Your task to perform on an android device: toggle show notifications on the lock screen Image 0: 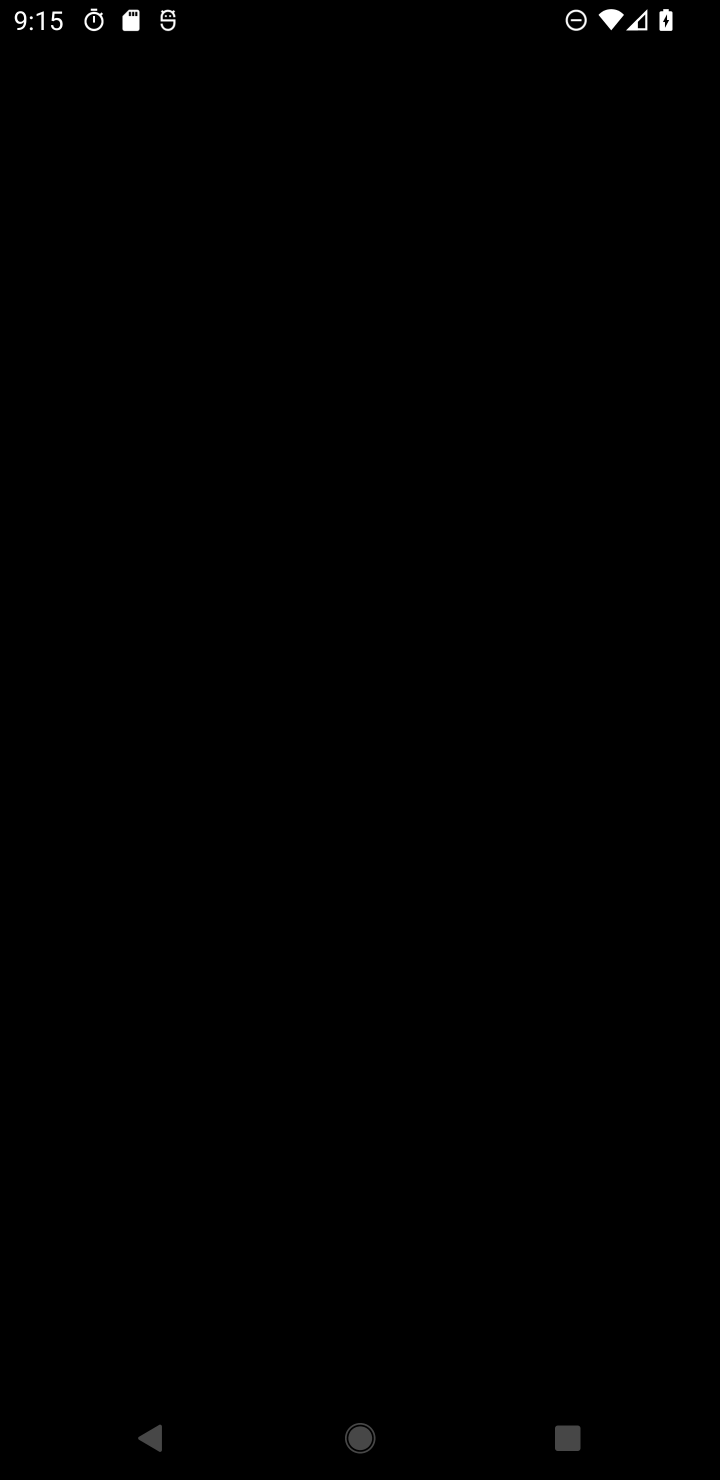
Step 0: press home button
Your task to perform on an android device: toggle show notifications on the lock screen Image 1: 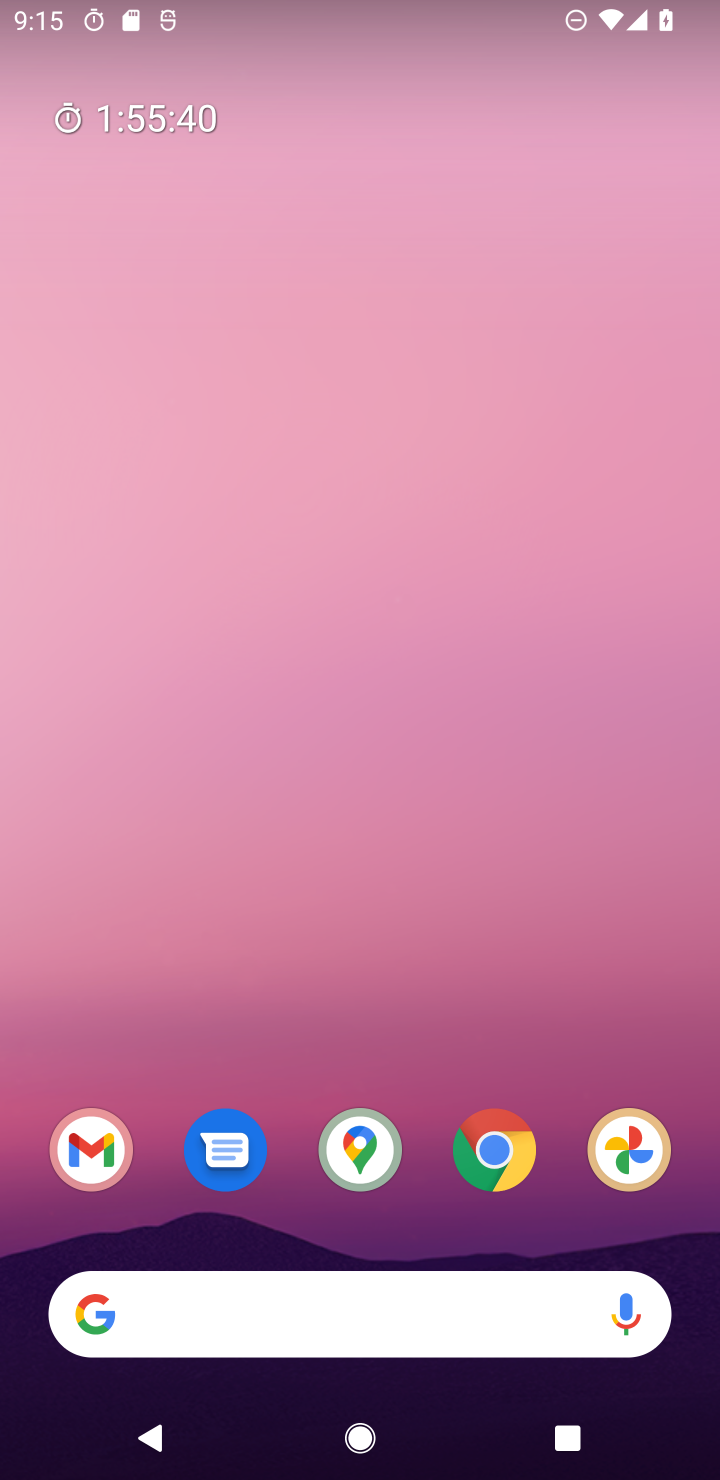
Step 1: drag from (560, 1226) to (719, 256)
Your task to perform on an android device: toggle show notifications on the lock screen Image 2: 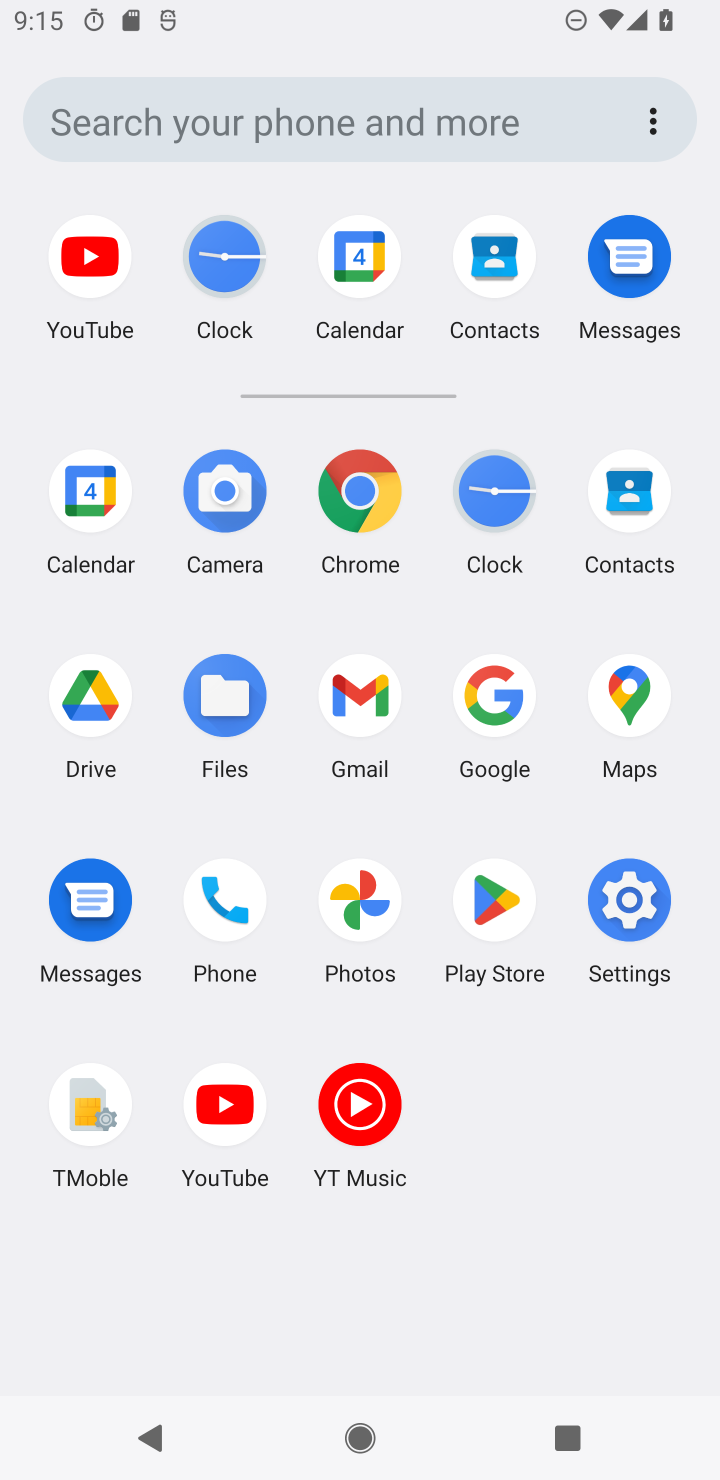
Step 2: click (629, 914)
Your task to perform on an android device: toggle show notifications on the lock screen Image 3: 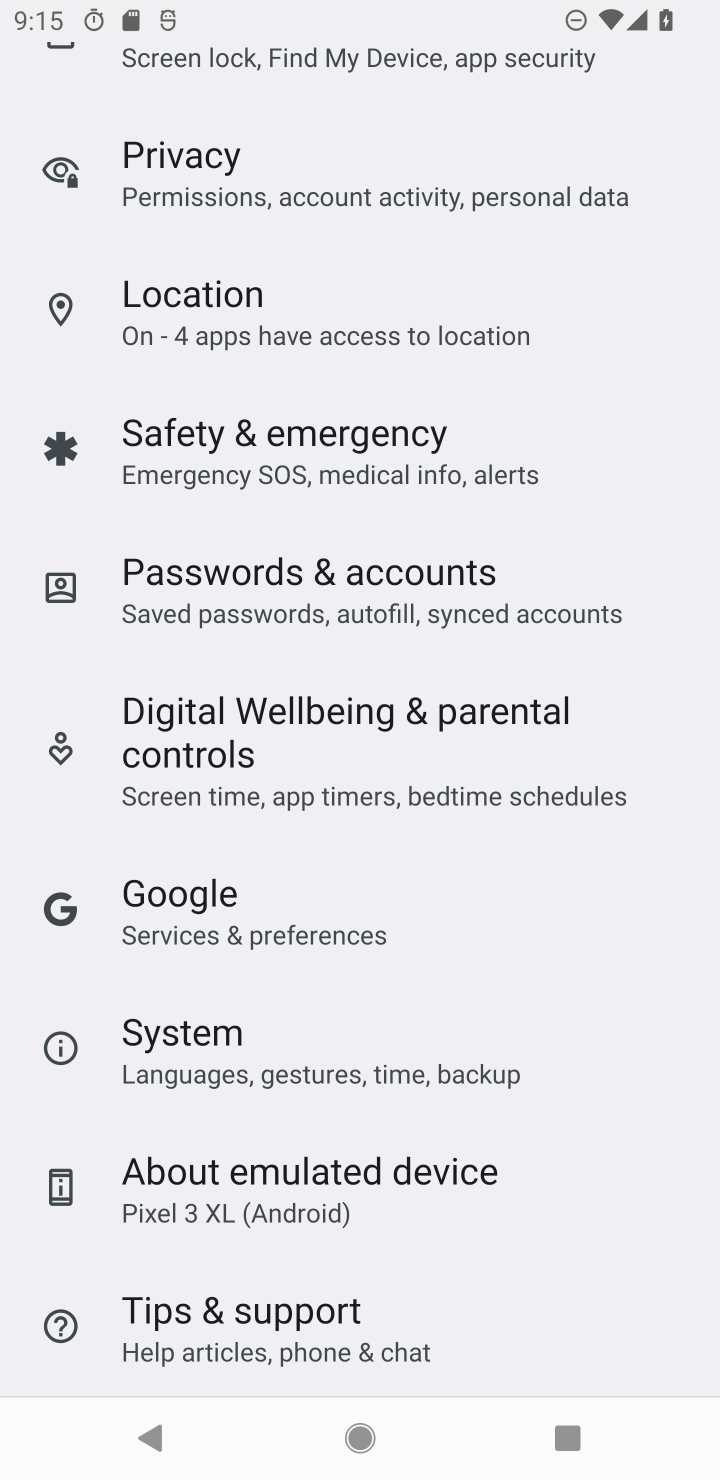
Step 3: drag from (410, 469) to (399, 1446)
Your task to perform on an android device: toggle show notifications on the lock screen Image 4: 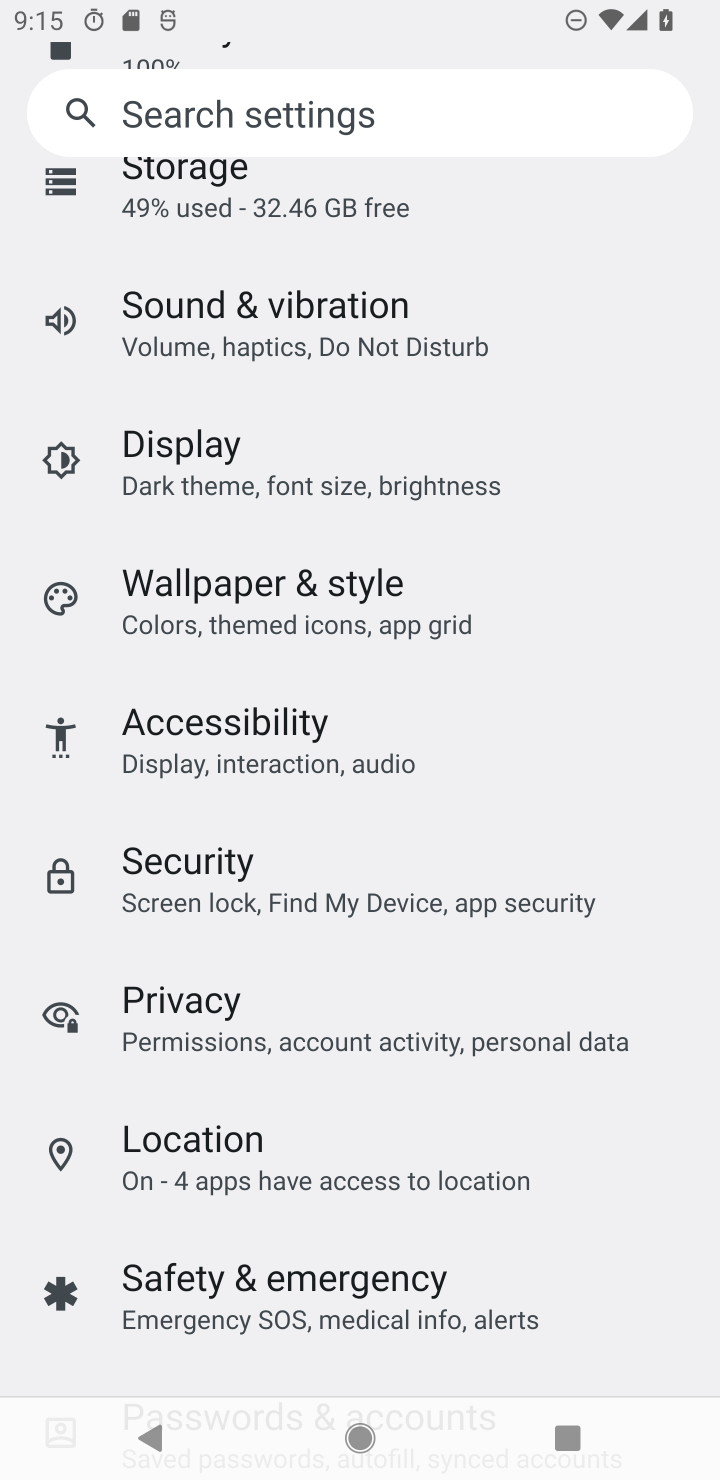
Step 4: drag from (356, 315) to (316, 1146)
Your task to perform on an android device: toggle show notifications on the lock screen Image 5: 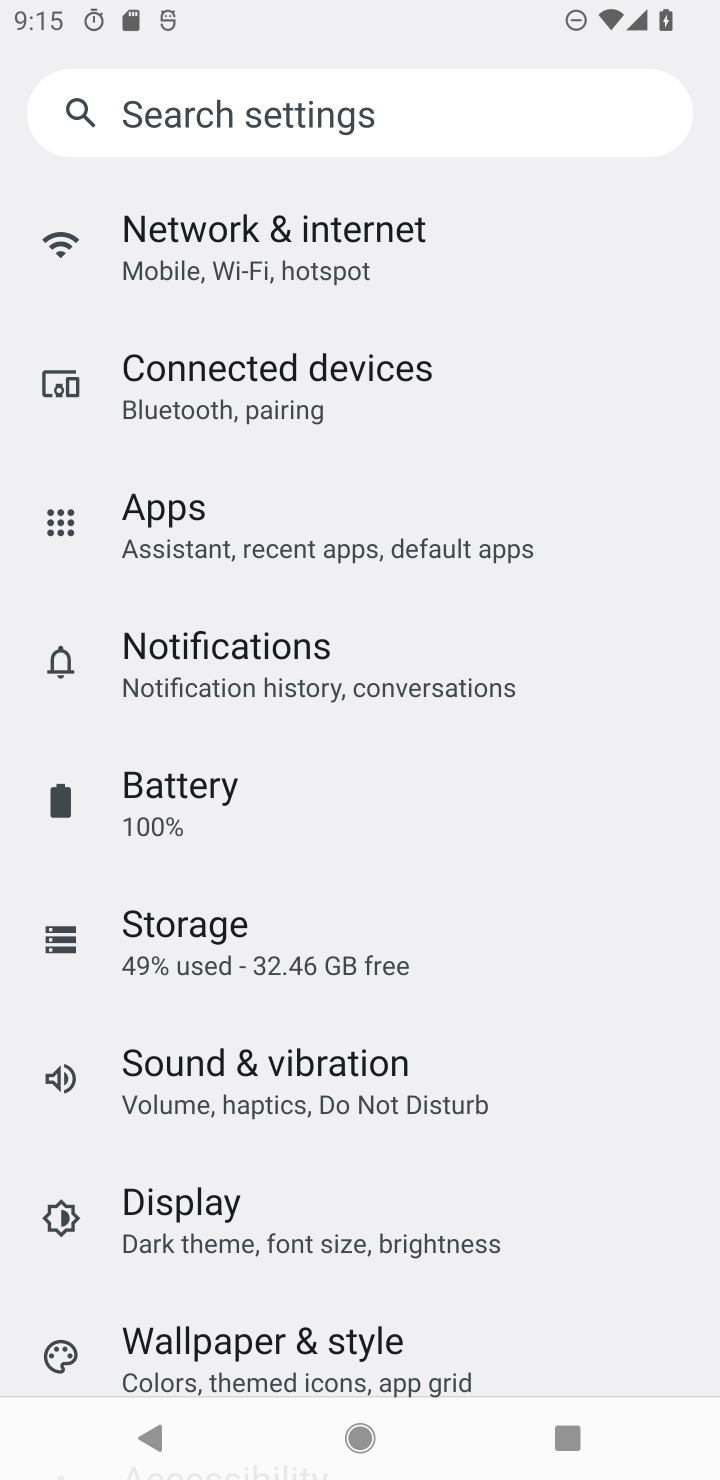
Step 5: click (284, 643)
Your task to perform on an android device: toggle show notifications on the lock screen Image 6: 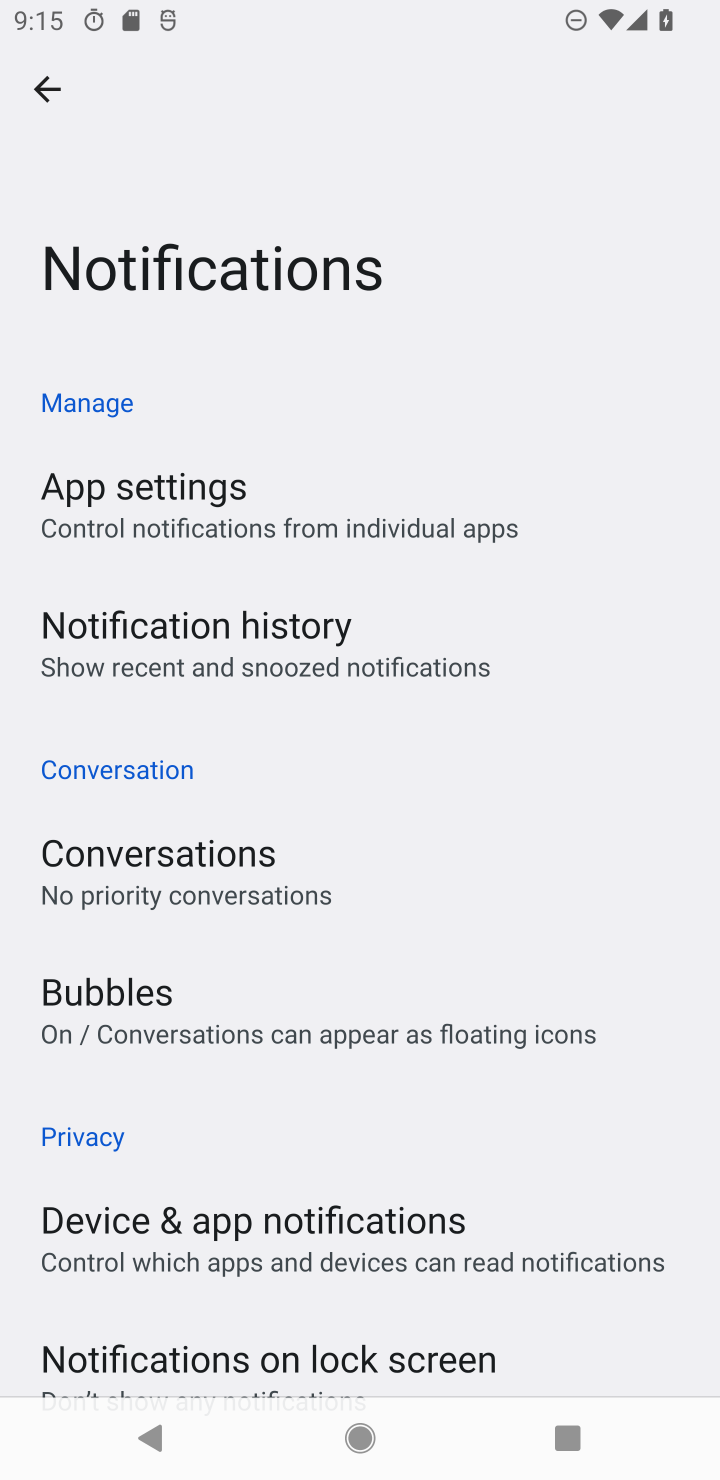
Step 6: drag from (265, 1279) to (377, 661)
Your task to perform on an android device: toggle show notifications on the lock screen Image 7: 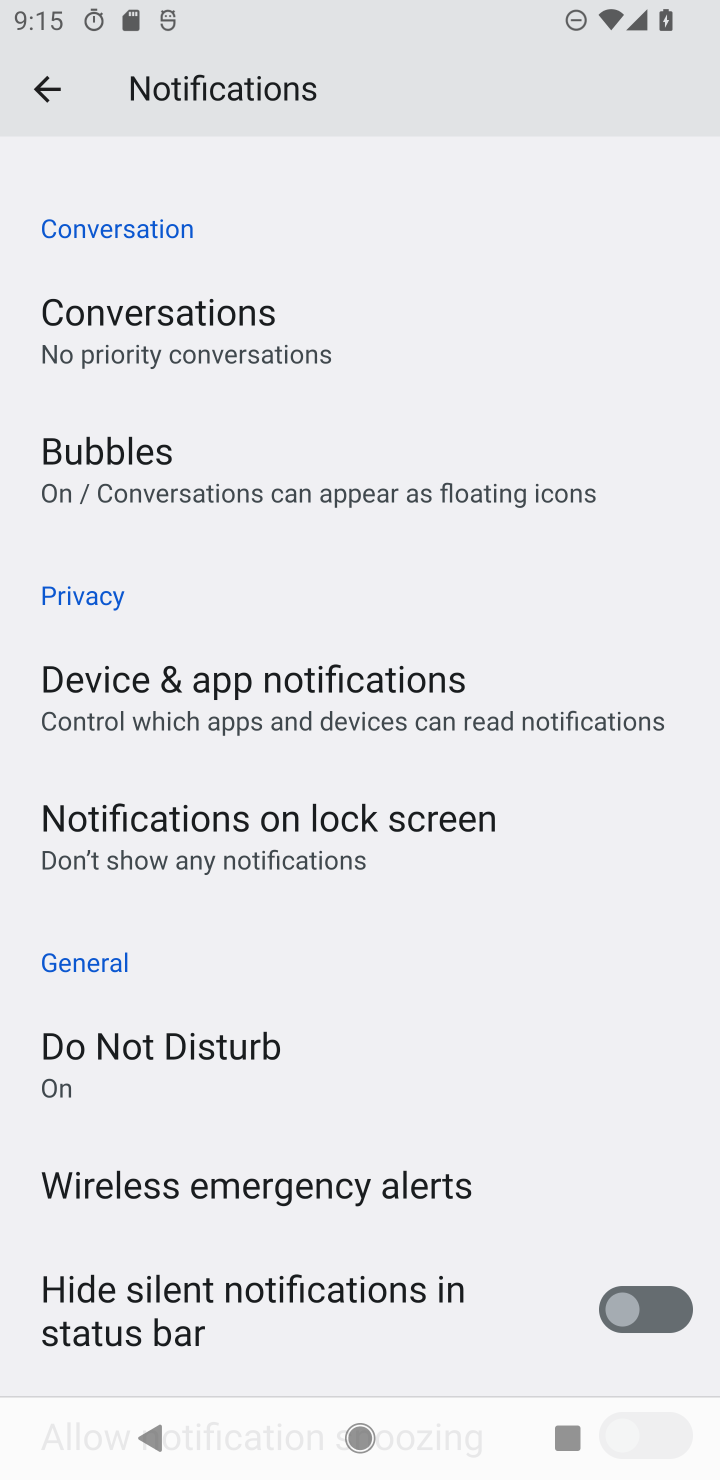
Step 7: click (291, 856)
Your task to perform on an android device: toggle show notifications on the lock screen Image 8: 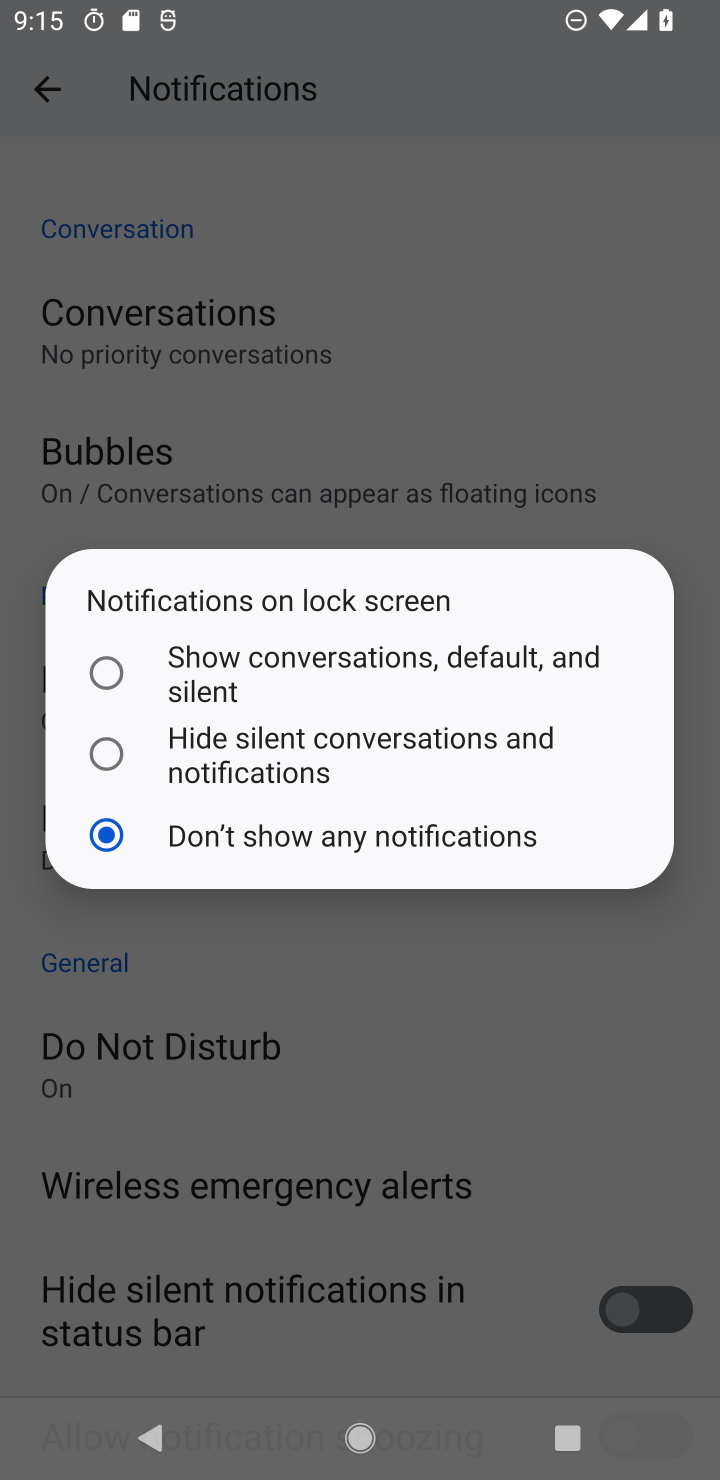
Step 8: click (105, 662)
Your task to perform on an android device: toggle show notifications on the lock screen Image 9: 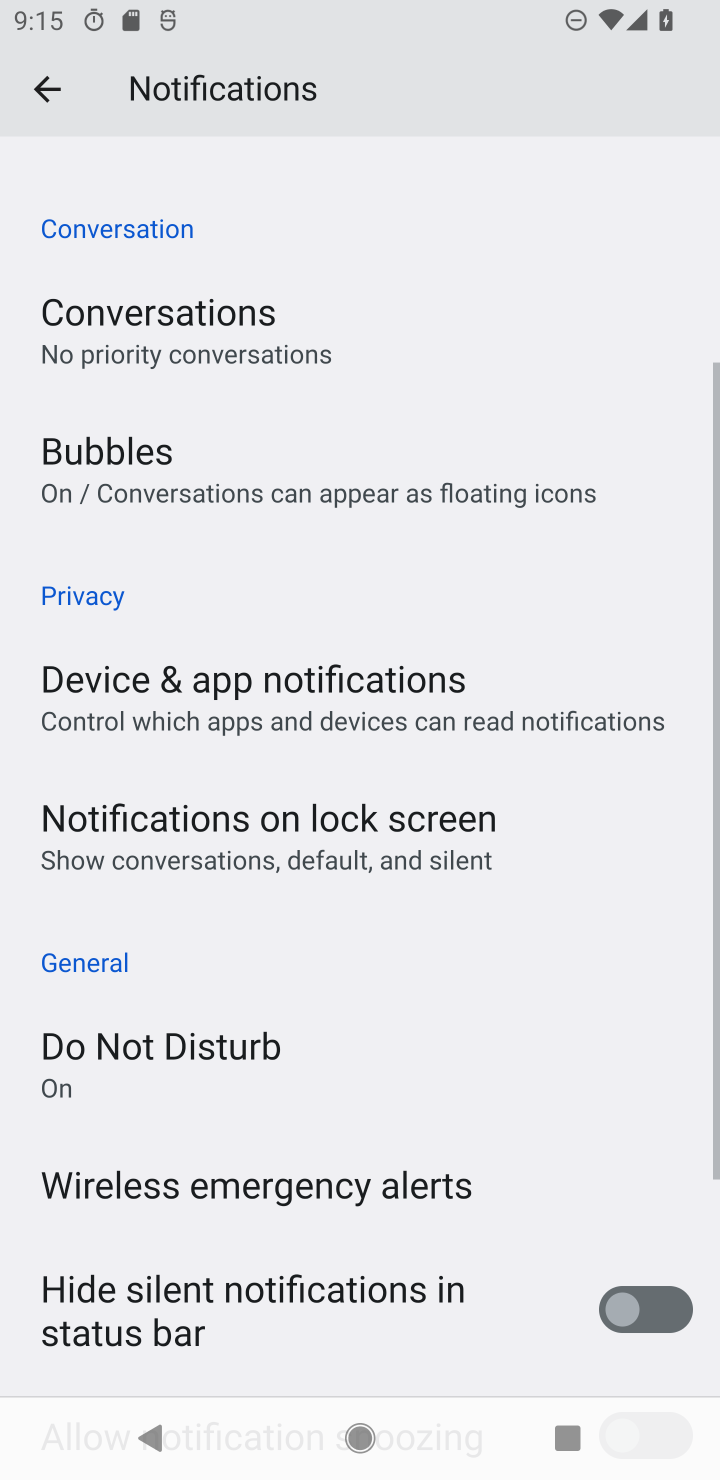
Step 9: task complete